Your task to perform on an android device: Search for a custom-made wallet on Etsy Image 0: 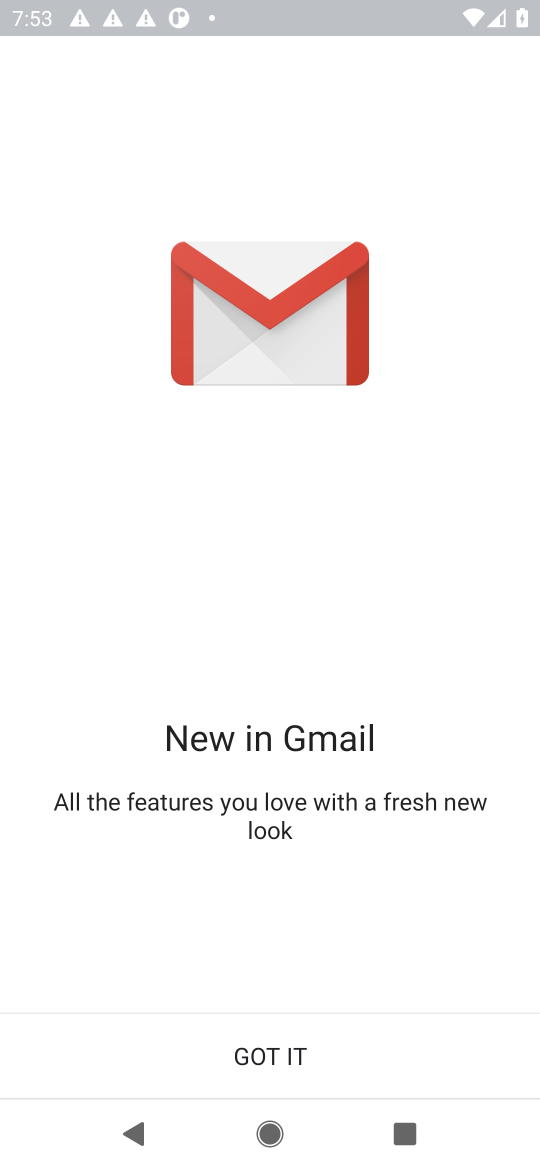
Step 0: press home button
Your task to perform on an android device: Search for a custom-made wallet on Etsy Image 1: 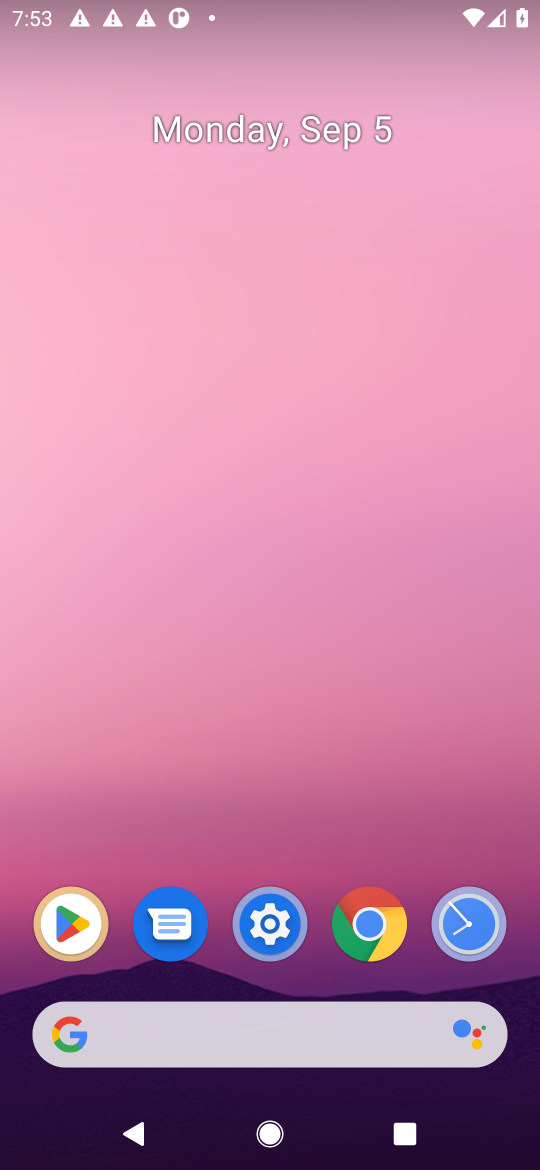
Step 1: click (383, 1032)
Your task to perform on an android device: Search for a custom-made wallet on Etsy Image 2: 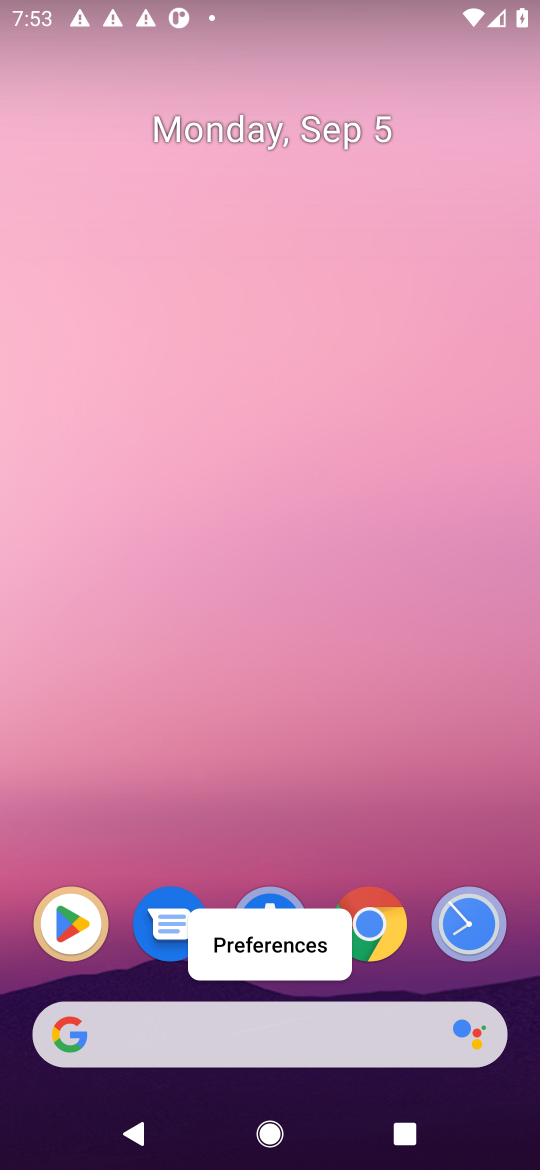
Step 2: click (166, 1029)
Your task to perform on an android device: Search for a custom-made wallet on Etsy Image 3: 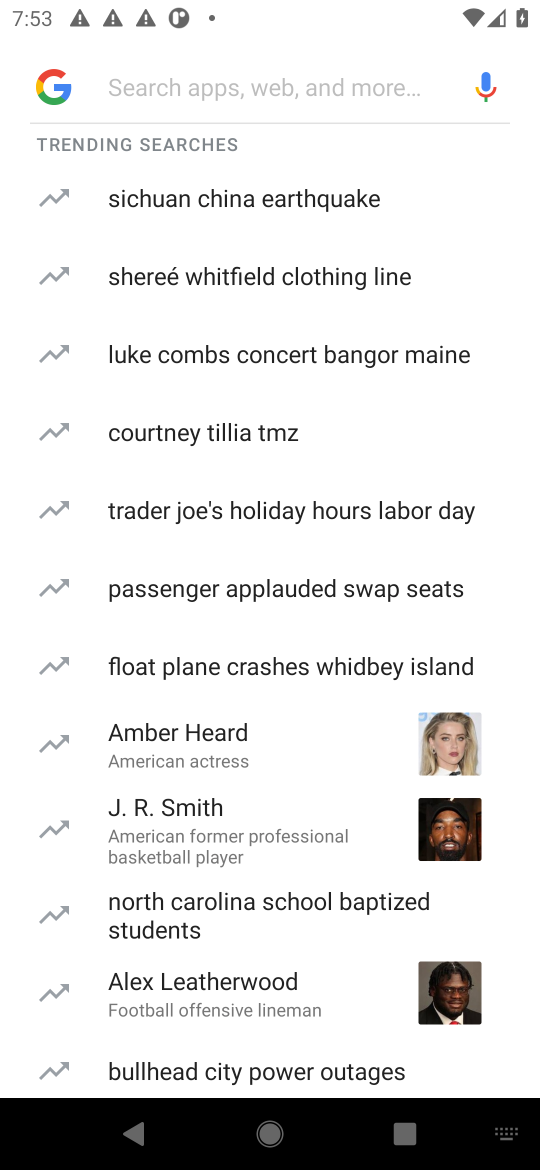
Step 3: type "etsy"
Your task to perform on an android device: Search for a custom-made wallet on Etsy Image 4: 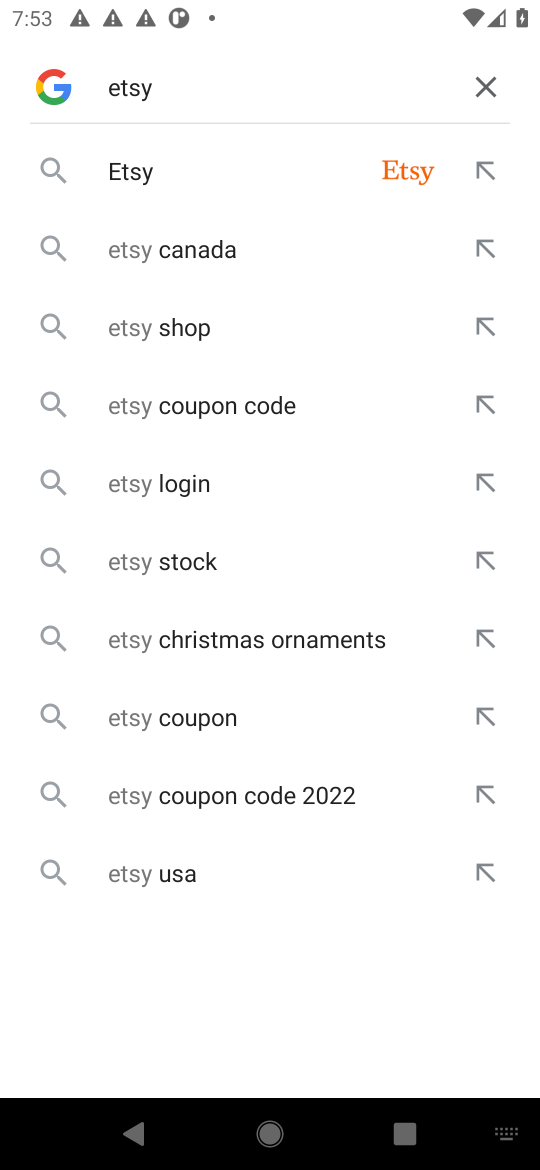
Step 4: press enter
Your task to perform on an android device: Search for a custom-made wallet on Etsy Image 5: 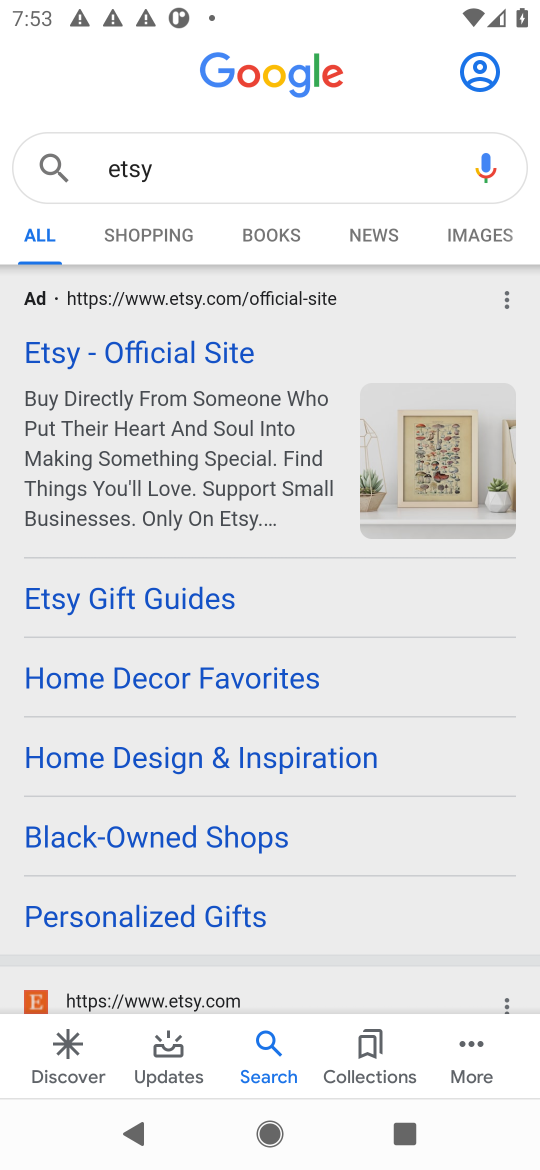
Step 5: click (163, 357)
Your task to perform on an android device: Search for a custom-made wallet on Etsy Image 6: 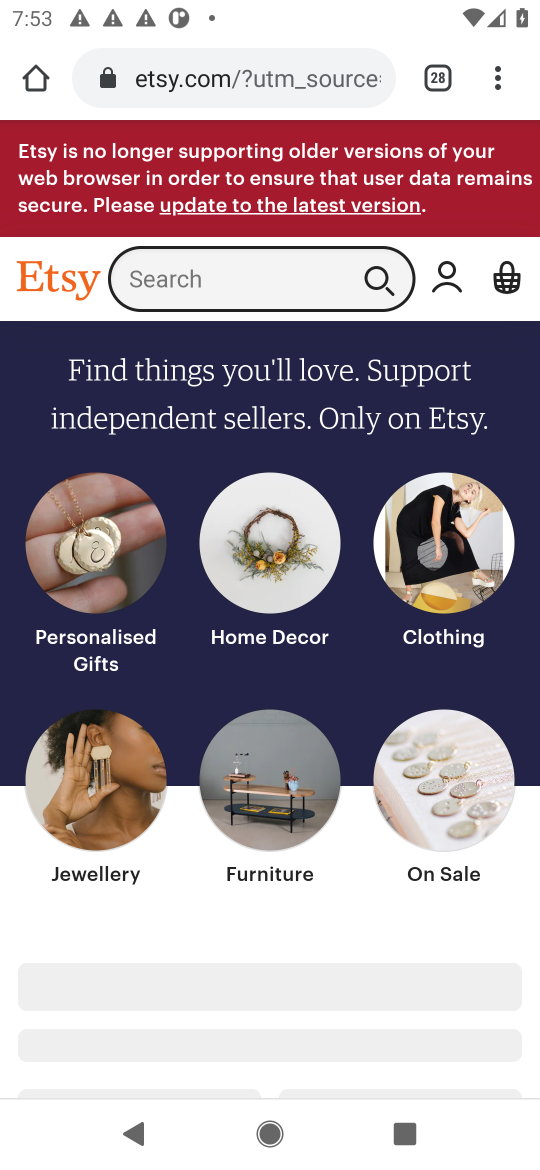
Step 6: click (204, 271)
Your task to perform on an android device: Search for a custom-made wallet on Etsy Image 7: 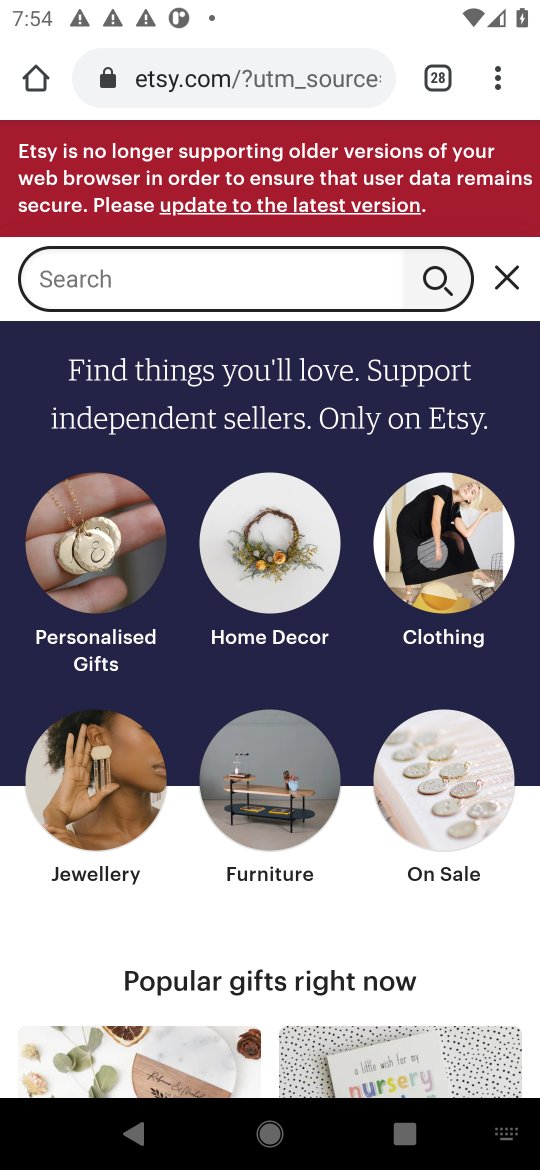
Step 7: type "custom made wallet "
Your task to perform on an android device: Search for a custom-made wallet on Etsy Image 8: 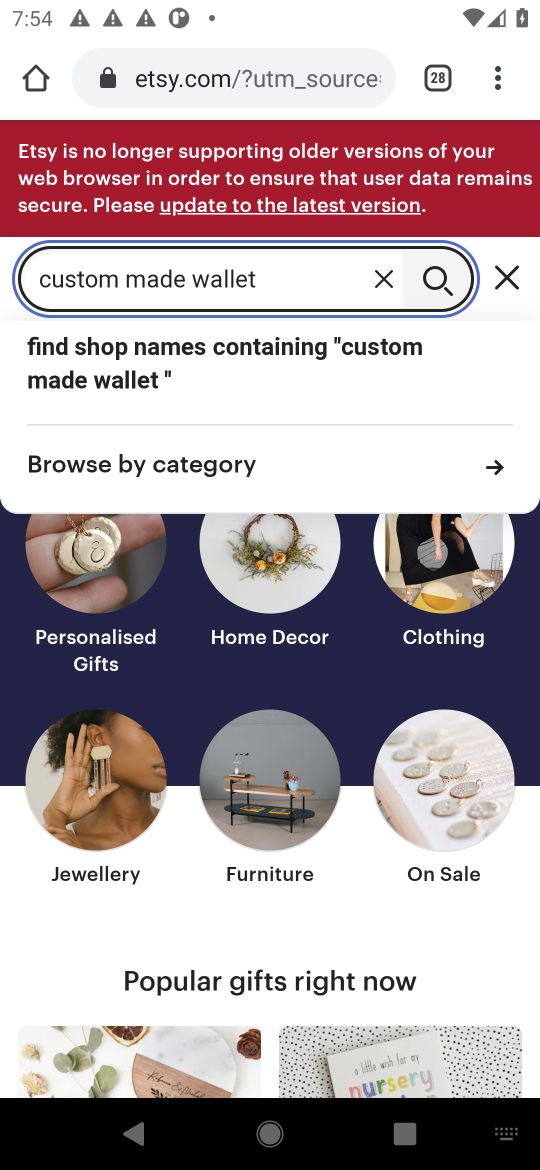
Step 8: click (445, 275)
Your task to perform on an android device: Search for a custom-made wallet on Etsy Image 9: 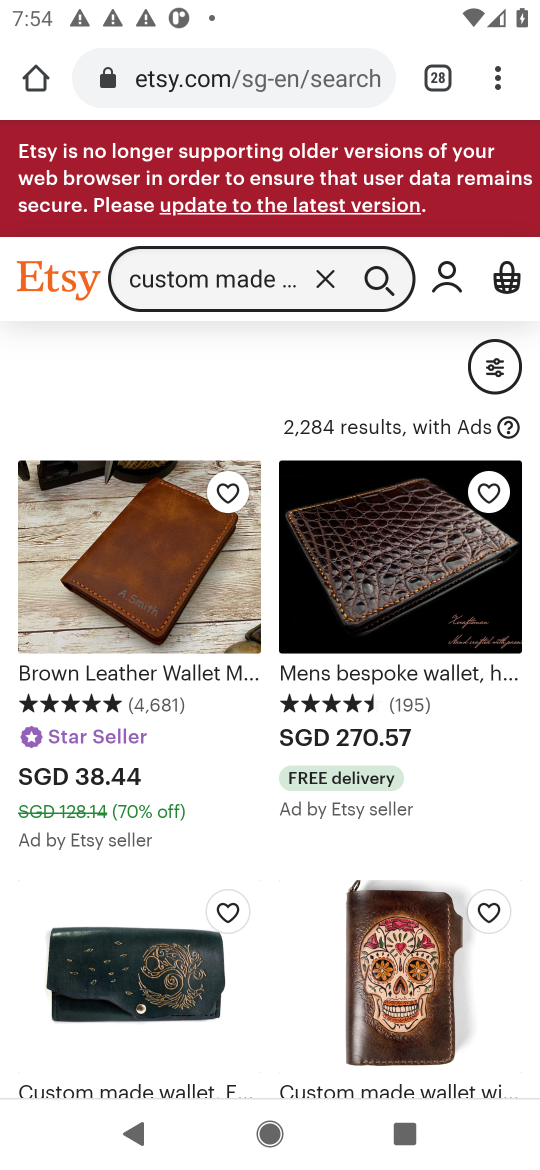
Step 9: task complete